Your task to perform on an android device: Open the web browser Image 0: 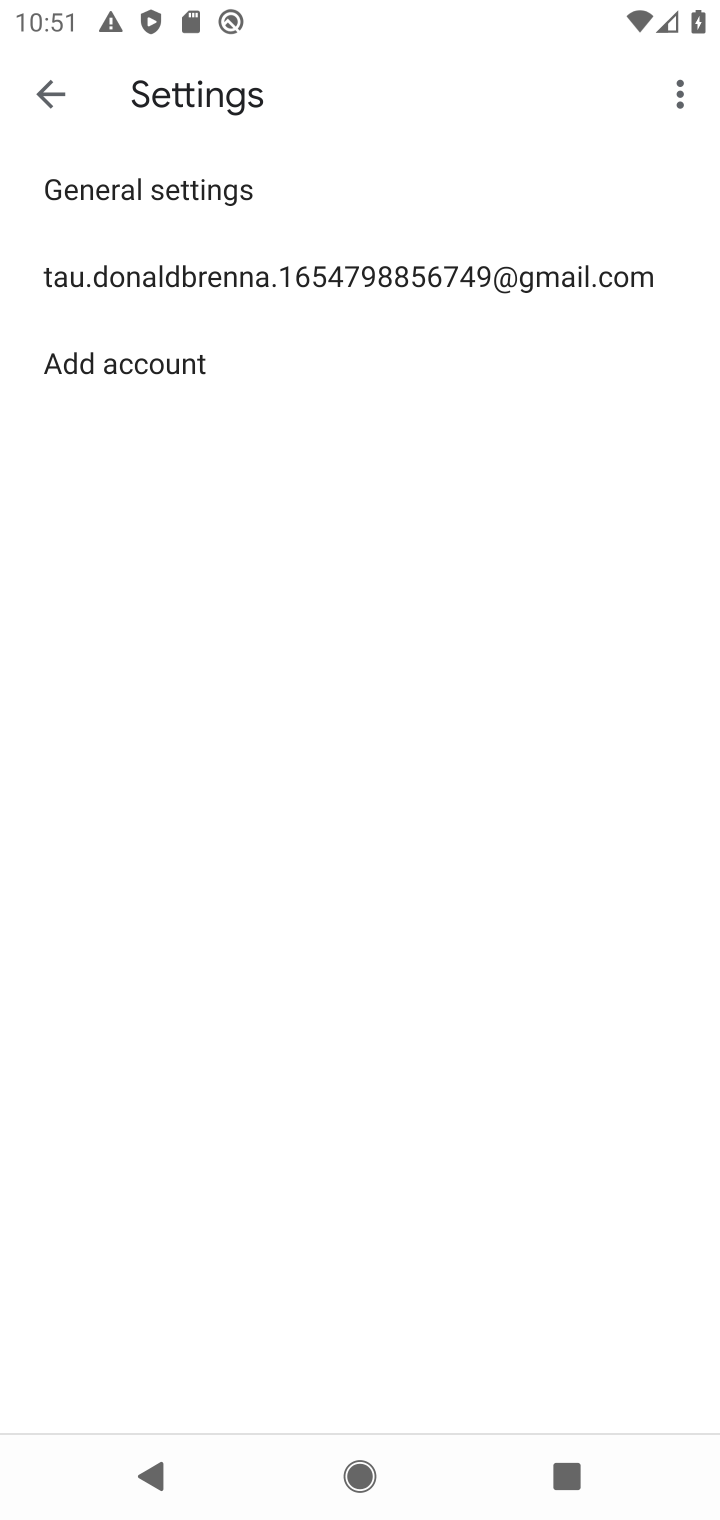
Step 0: press home button
Your task to perform on an android device: Open the web browser Image 1: 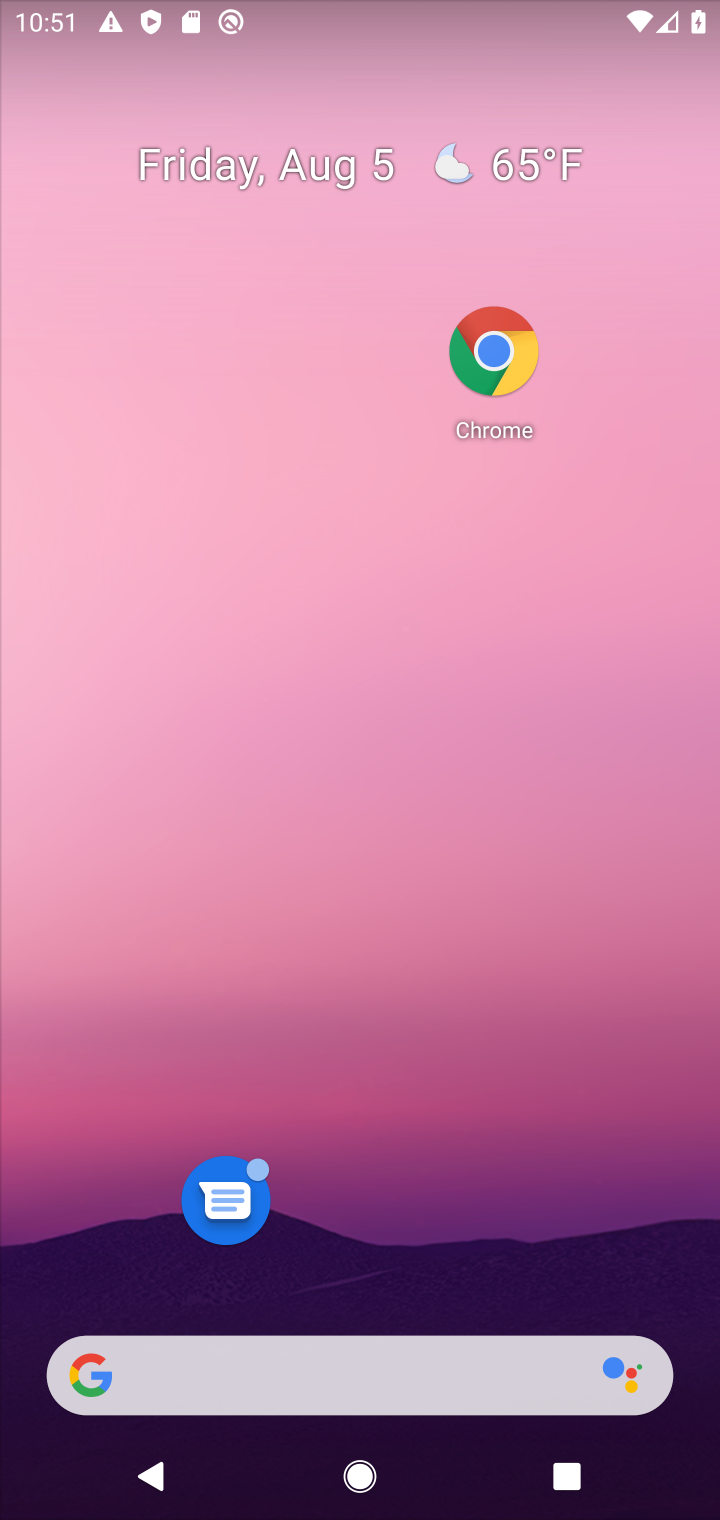
Step 1: drag from (413, 1486) to (500, 250)
Your task to perform on an android device: Open the web browser Image 2: 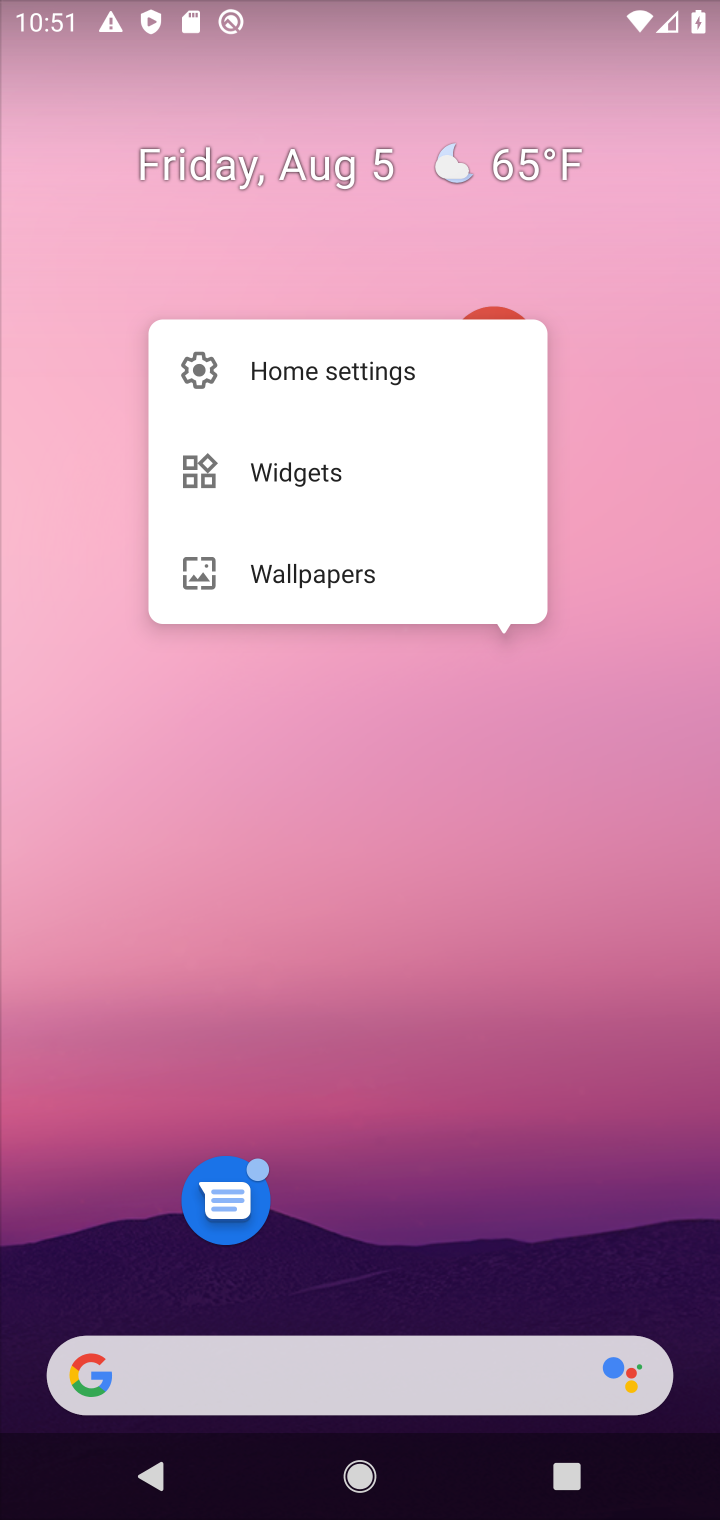
Step 2: click (412, 989)
Your task to perform on an android device: Open the web browser Image 3: 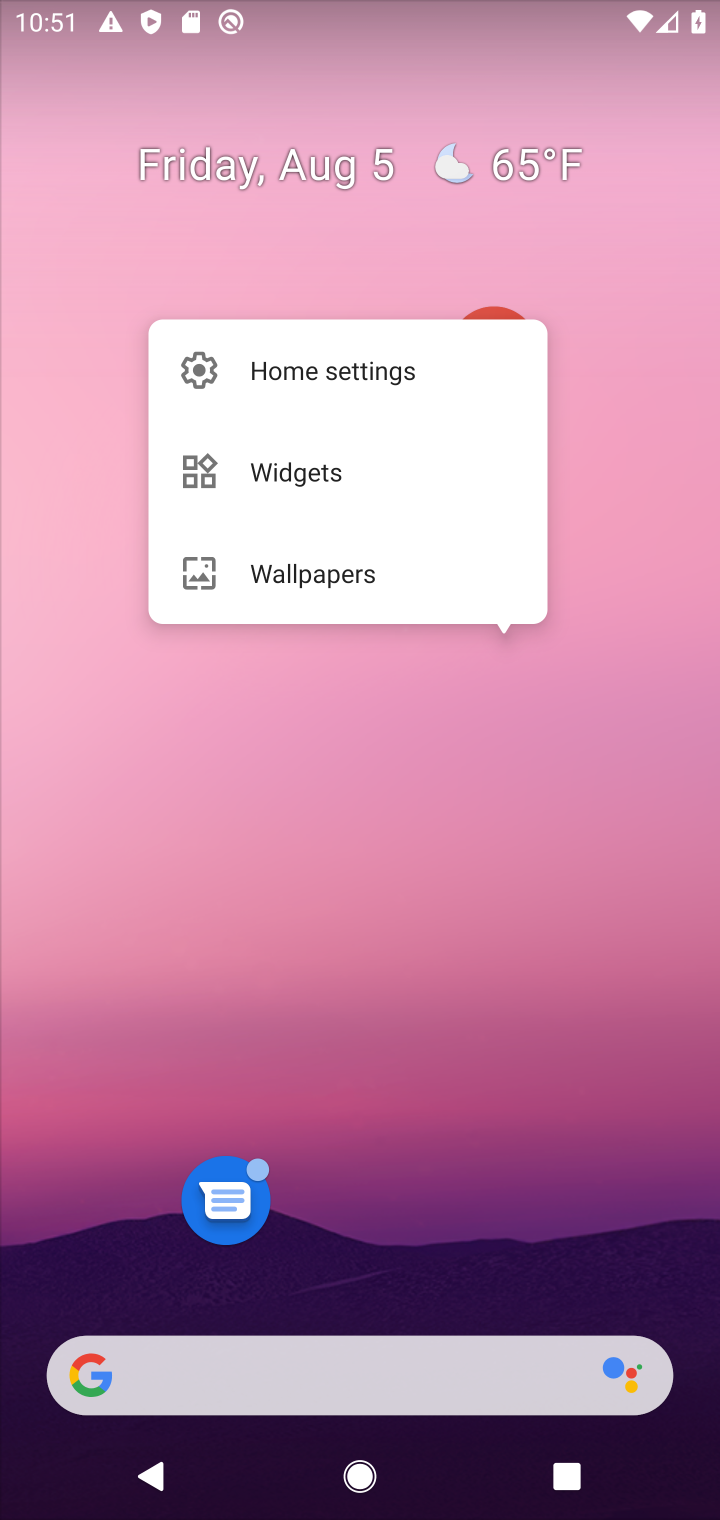
Step 3: click (412, 989)
Your task to perform on an android device: Open the web browser Image 4: 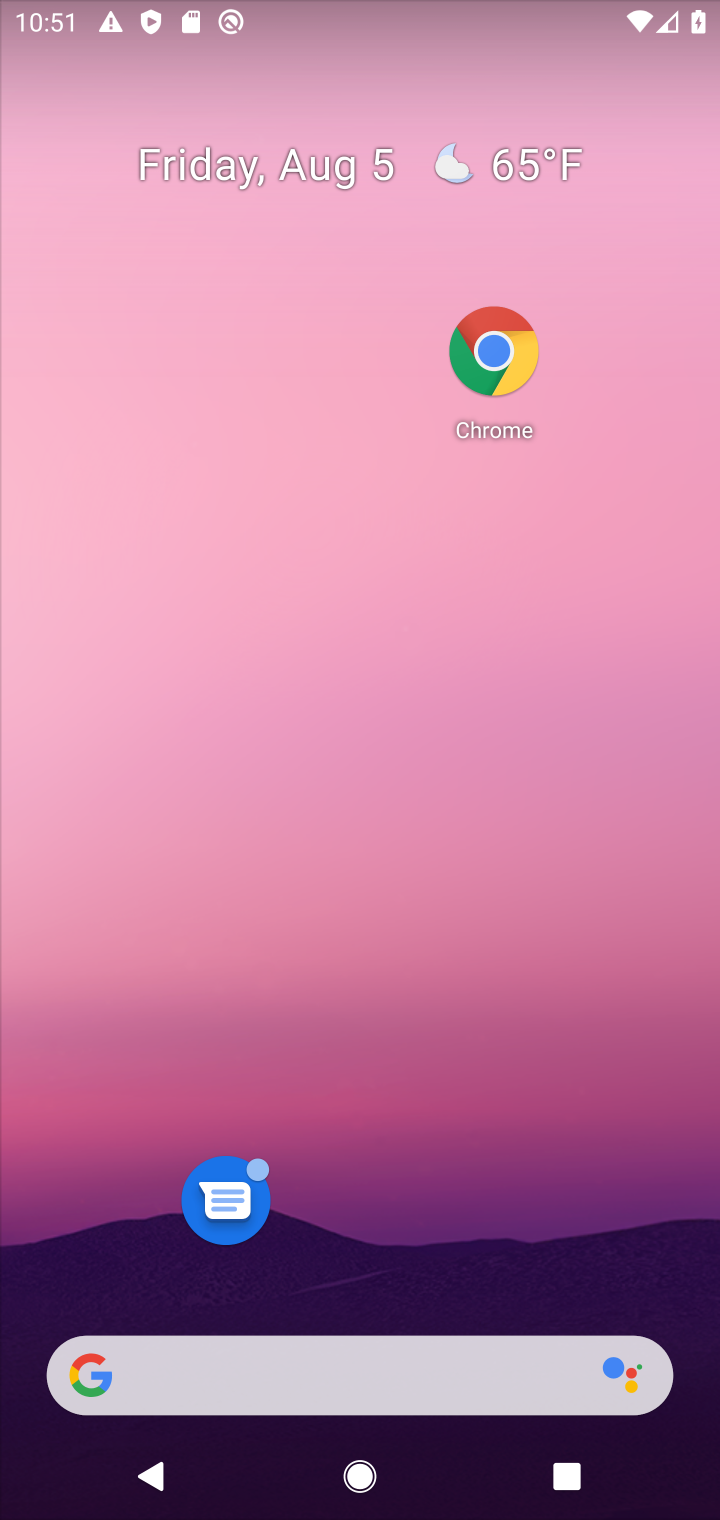
Step 4: click (486, 412)
Your task to perform on an android device: Open the web browser Image 5: 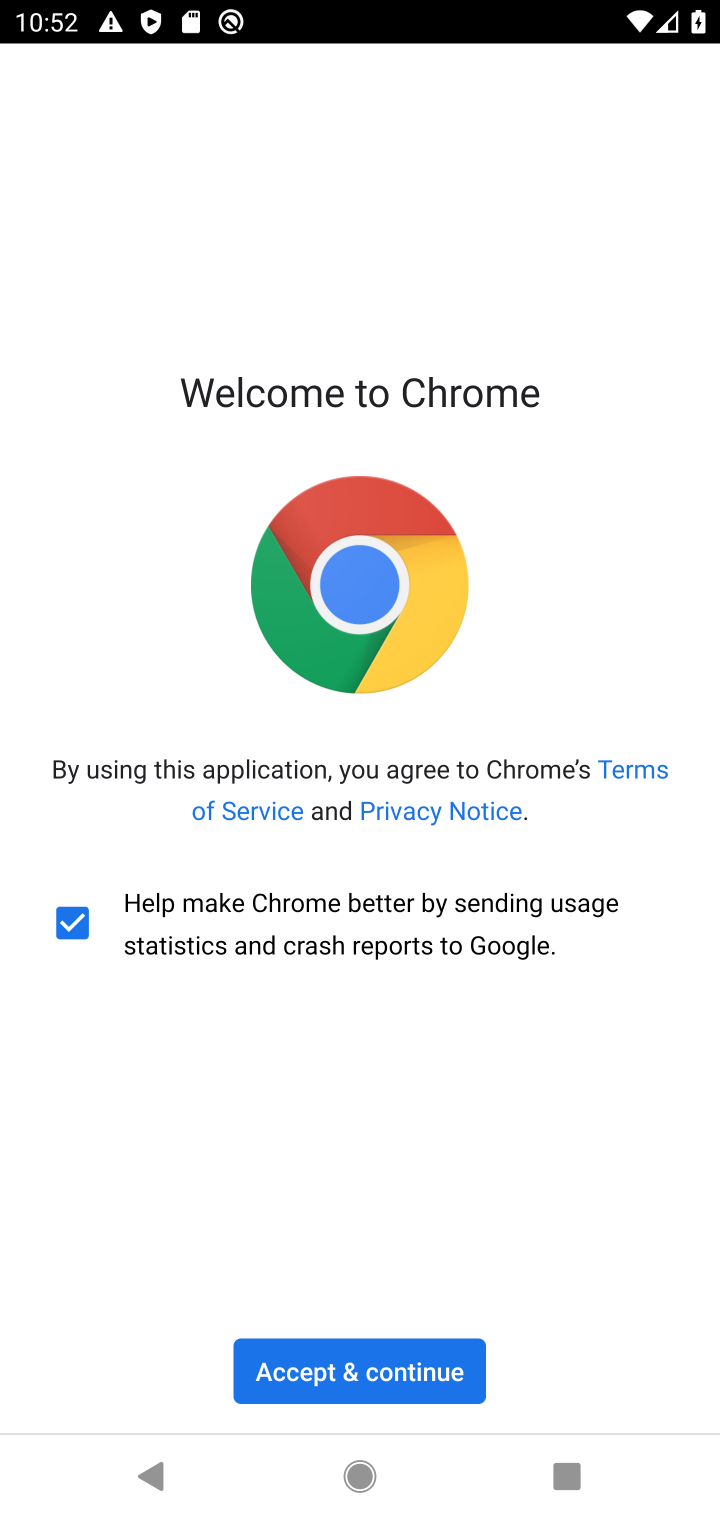
Step 5: click (432, 1358)
Your task to perform on an android device: Open the web browser Image 6: 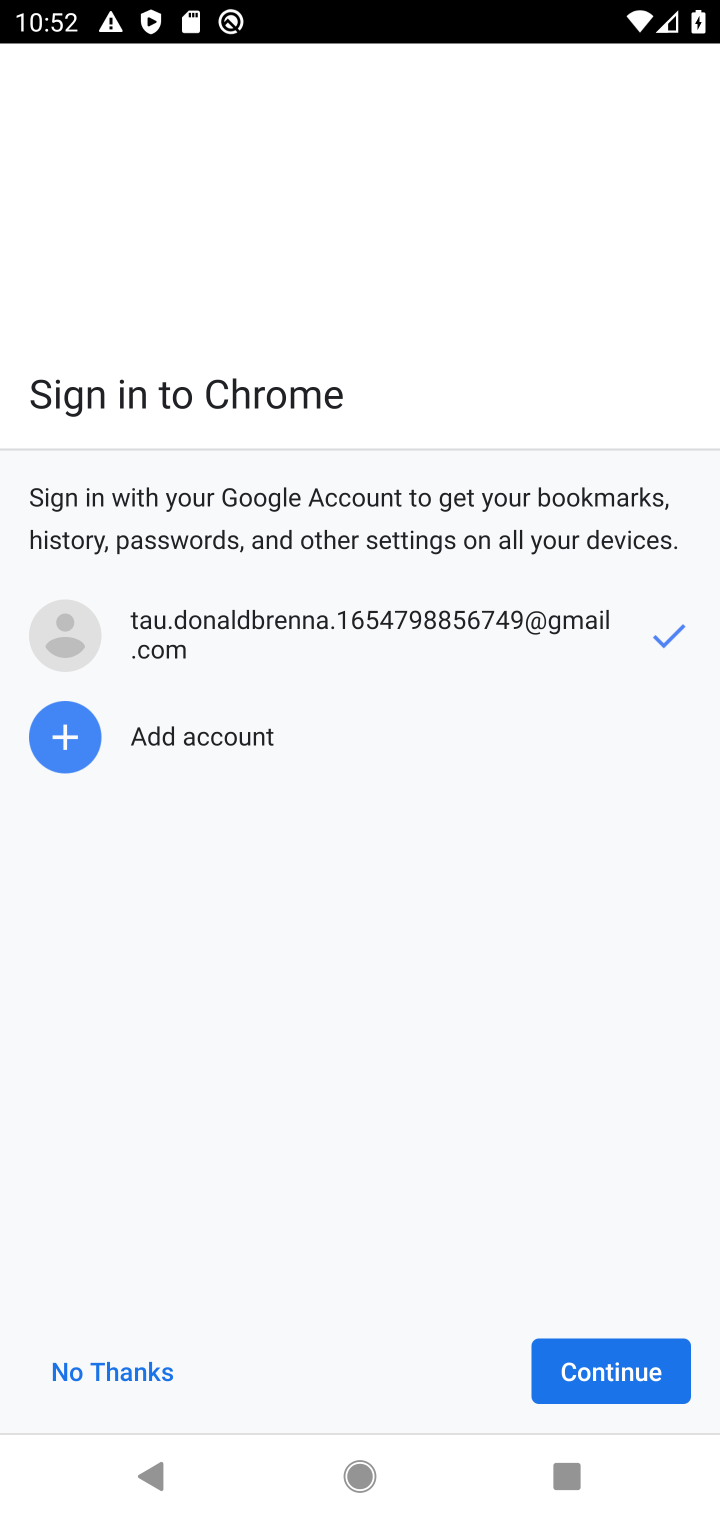
Step 6: click (639, 1385)
Your task to perform on an android device: Open the web browser Image 7: 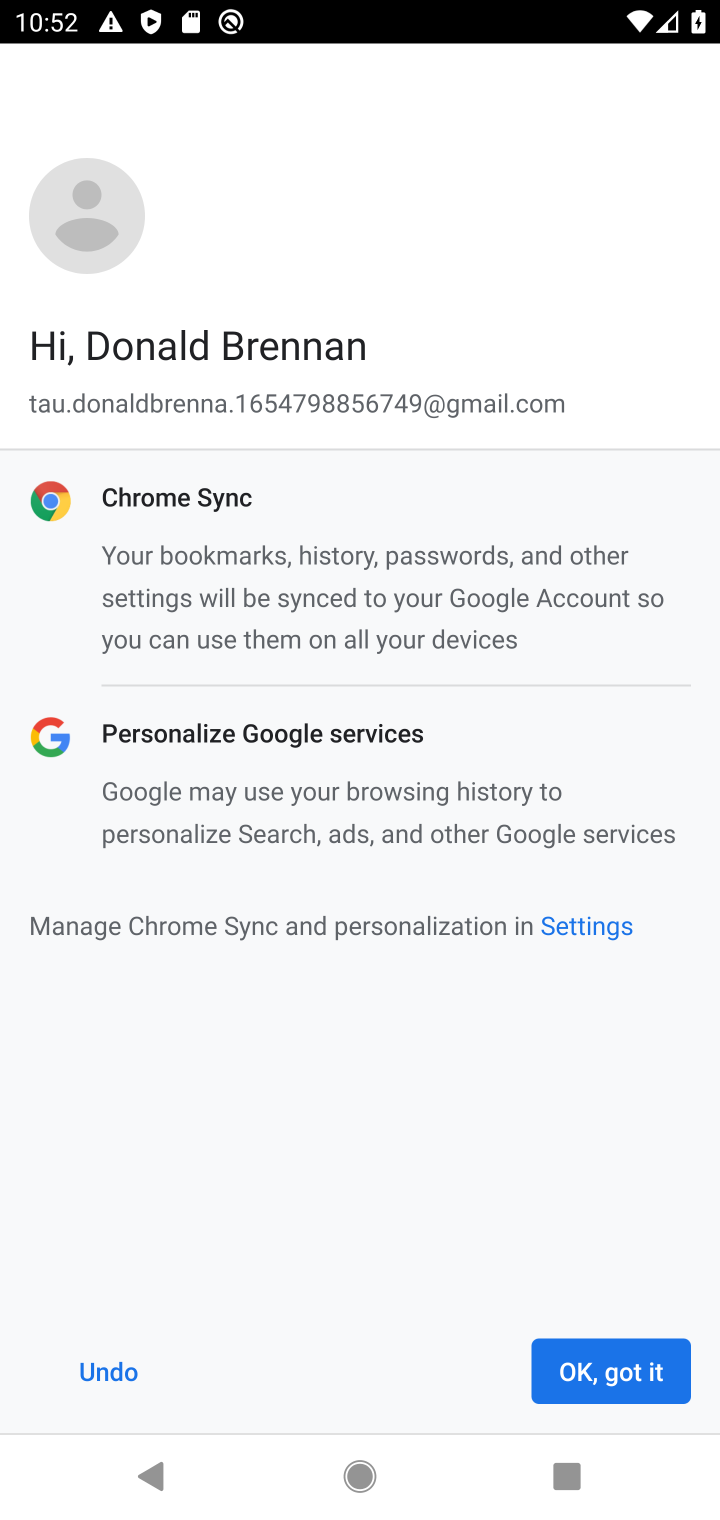
Step 7: click (639, 1385)
Your task to perform on an android device: Open the web browser Image 8: 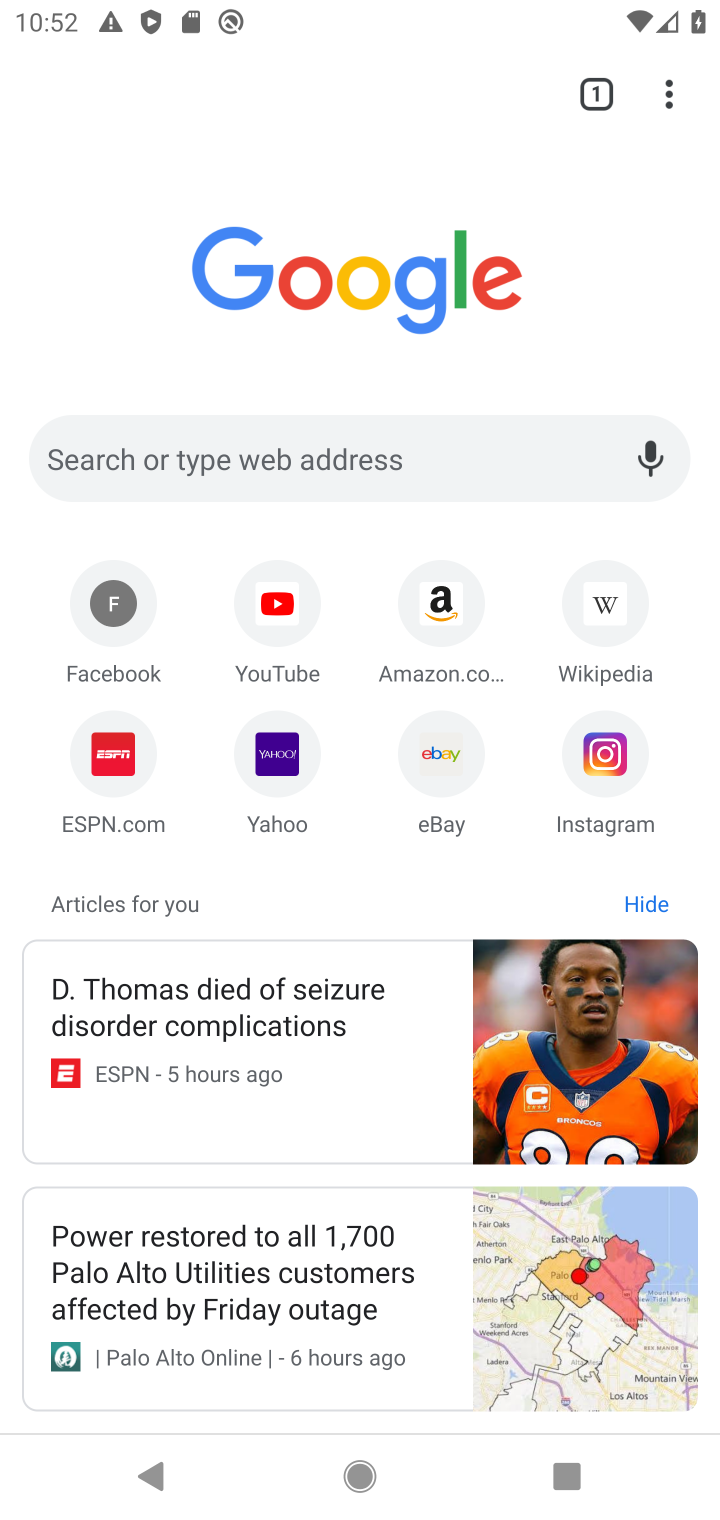
Step 8: task complete